Your task to perform on an android device: remove spam from my inbox in the gmail app Image 0: 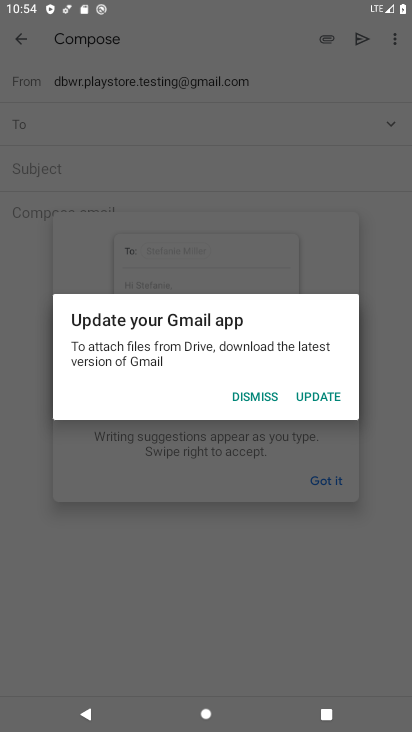
Step 0: press home button
Your task to perform on an android device: remove spam from my inbox in the gmail app Image 1: 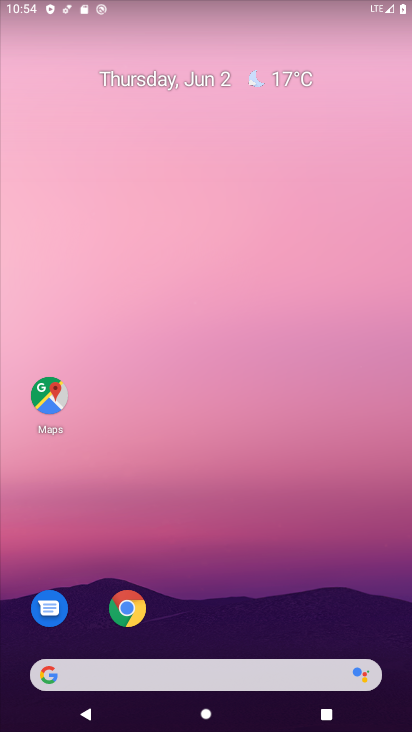
Step 1: drag from (272, 317) to (237, 15)
Your task to perform on an android device: remove spam from my inbox in the gmail app Image 2: 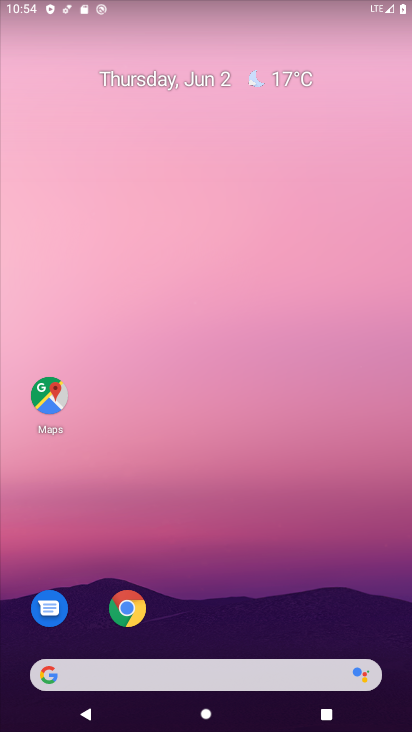
Step 2: drag from (311, 570) to (149, 2)
Your task to perform on an android device: remove spam from my inbox in the gmail app Image 3: 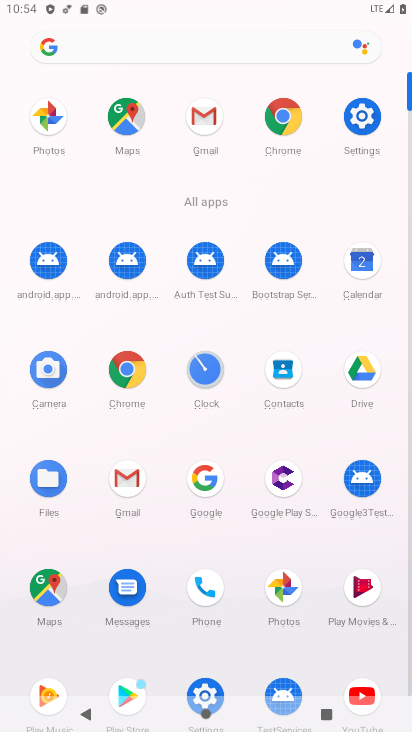
Step 3: click (132, 483)
Your task to perform on an android device: remove spam from my inbox in the gmail app Image 4: 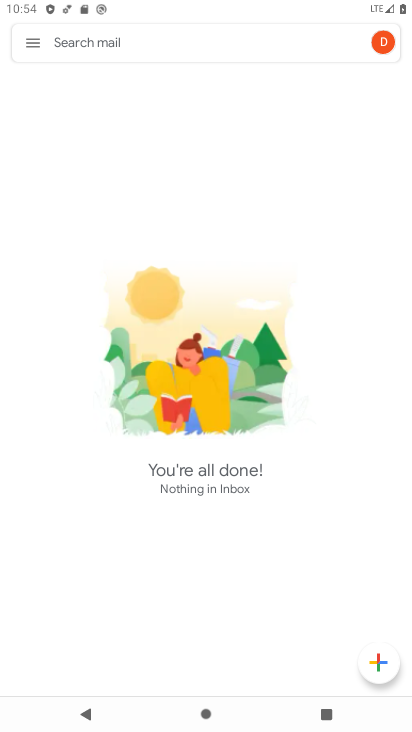
Step 4: click (36, 42)
Your task to perform on an android device: remove spam from my inbox in the gmail app Image 5: 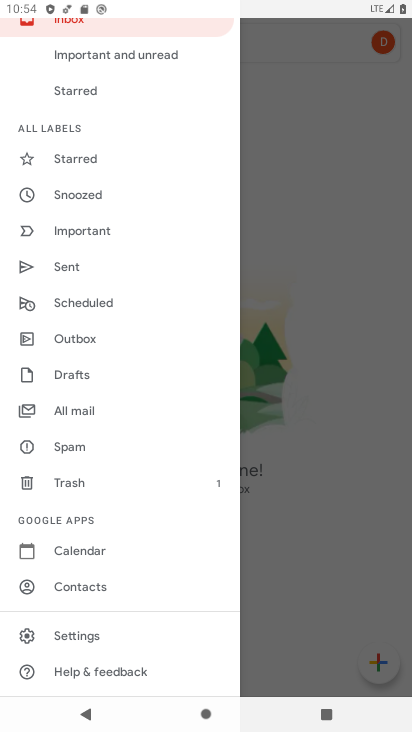
Step 5: click (90, 449)
Your task to perform on an android device: remove spam from my inbox in the gmail app Image 6: 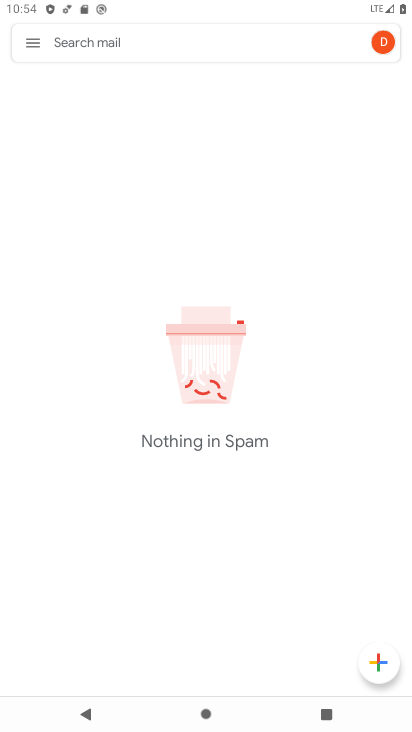
Step 6: task complete